Your task to perform on an android device: turn off data saver in the chrome app Image 0: 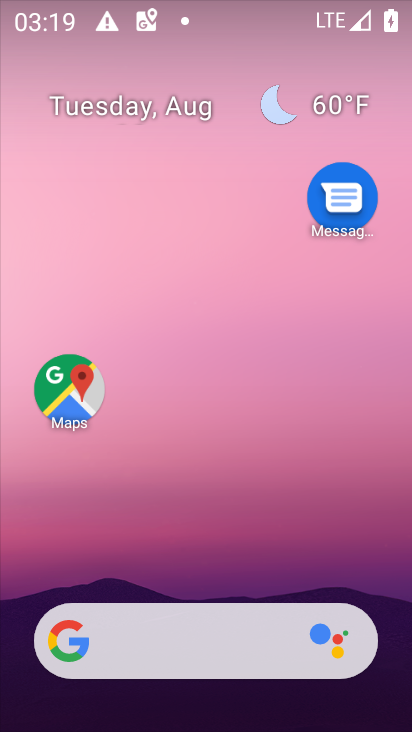
Step 0: drag from (221, 589) to (226, 112)
Your task to perform on an android device: turn off data saver in the chrome app Image 1: 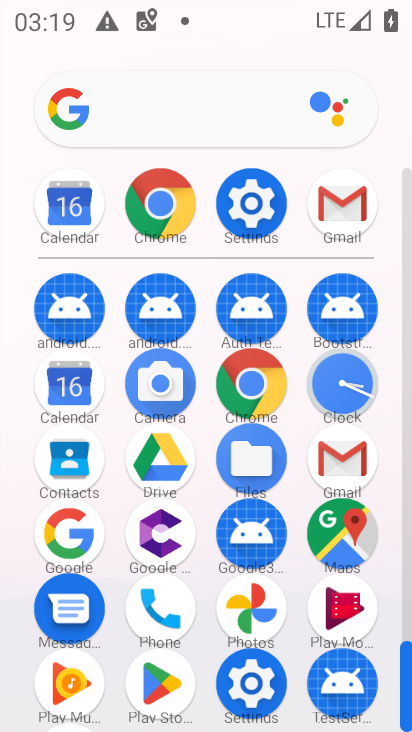
Step 1: click (162, 203)
Your task to perform on an android device: turn off data saver in the chrome app Image 2: 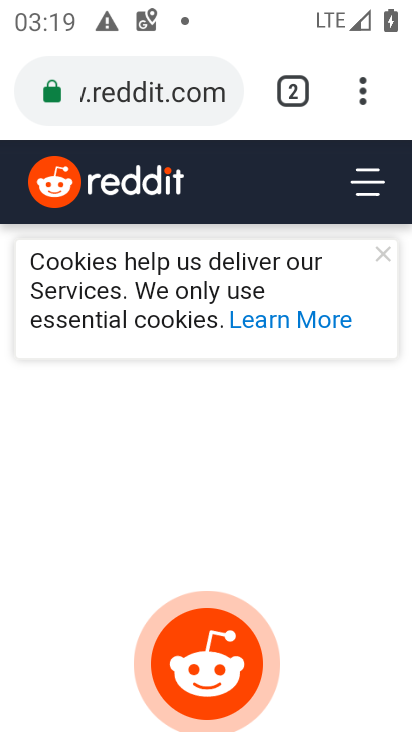
Step 2: click (354, 97)
Your task to perform on an android device: turn off data saver in the chrome app Image 3: 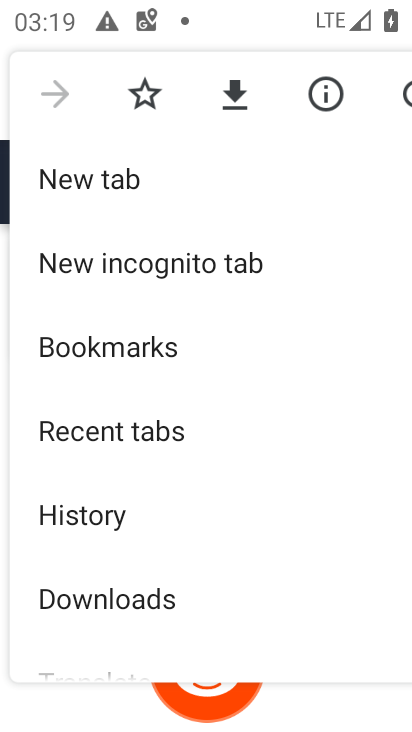
Step 3: drag from (223, 599) to (239, 266)
Your task to perform on an android device: turn off data saver in the chrome app Image 4: 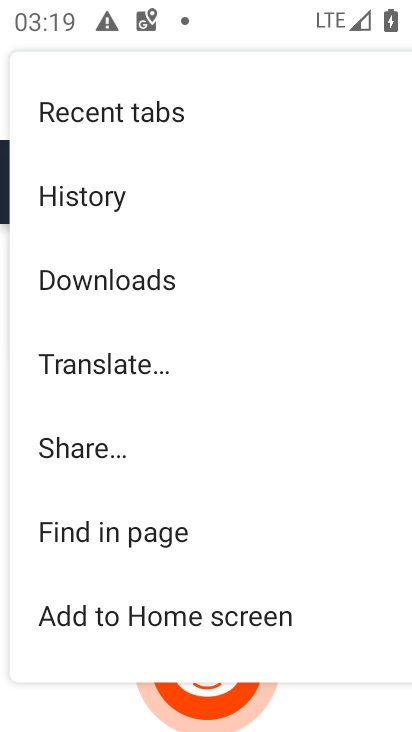
Step 4: drag from (147, 637) to (149, 383)
Your task to perform on an android device: turn off data saver in the chrome app Image 5: 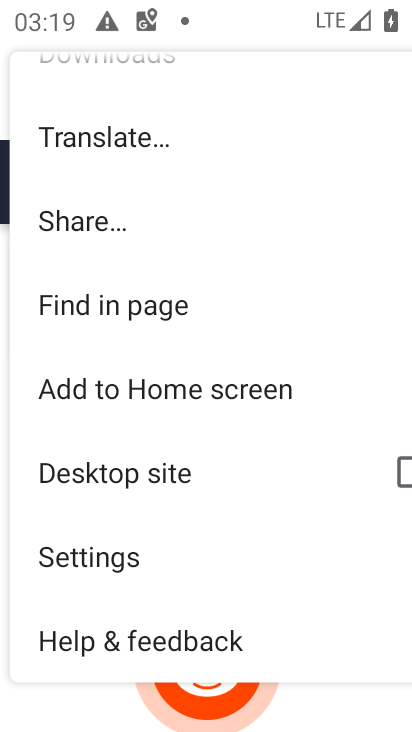
Step 5: click (84, 543)
Your task to perform on an android device: turn off data saver in the chrome app Image 6: 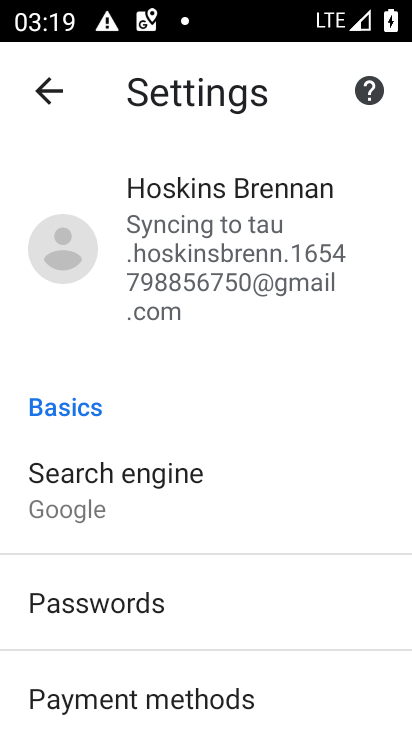
Step 6: drag from (117, 610) to (156, 140)
Your task to perform on an android device: turn off data saver in the chrome app Image 7: 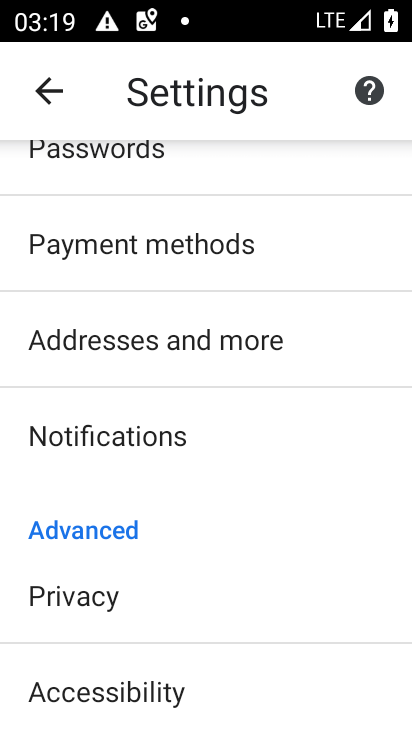
Step 7: drag from (161, 580) to (194, 235)
Your task to perform on an android device: turn off data saver in the chrome app Image 8: 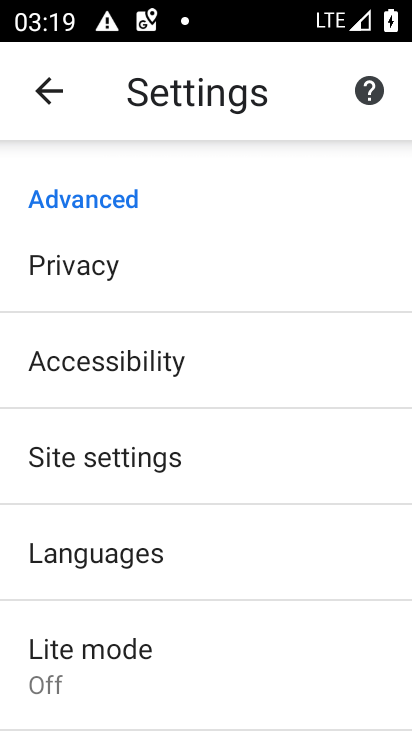
Step 8: click (176, 687)
Your task to perform on an android device: turn off data saver in the chrome app Image 9: 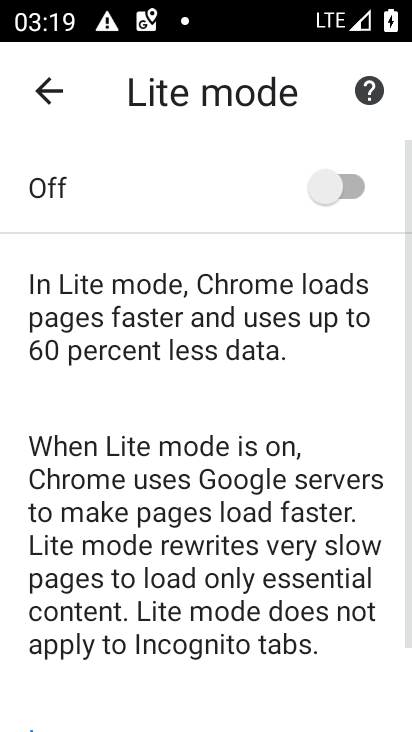
Step 9: click (359, 208)
Your task to perform on an android device: turn off data saver in the chrome app Image 10: 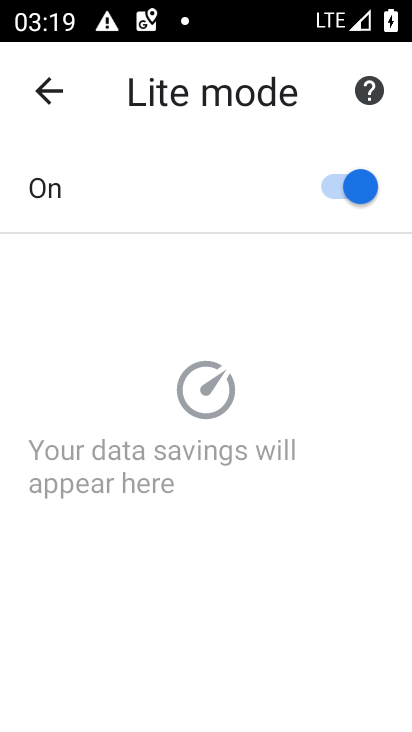
Step 10: task complete